Your task to perform on an android device: Check the news Image 0: 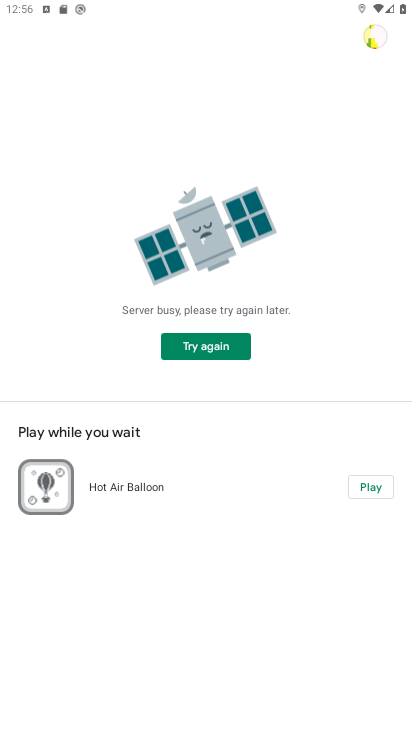
Step 0: press home button
Your task to perform on an android device: Check the news Image 1: 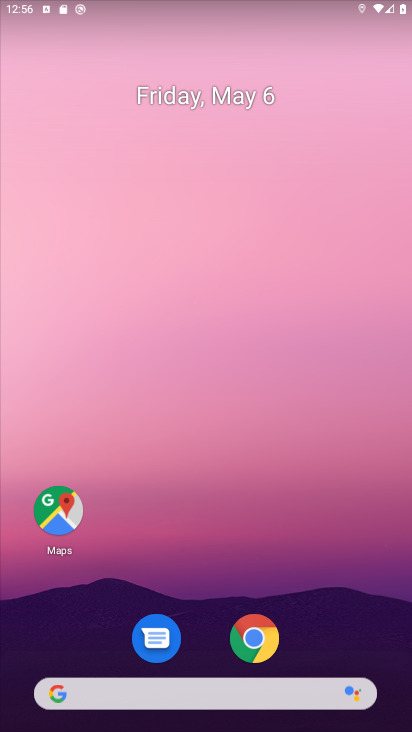
Step 1: drag from (325, 673) to (329, 2)
Your task to perform on an android device: Check the news Image 2: 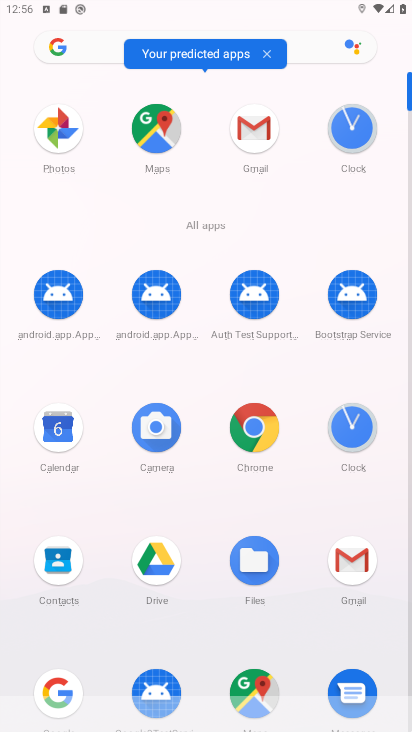
Step 2: click (254, 435)
Your task to perform on an android device: Check the news Image 3: 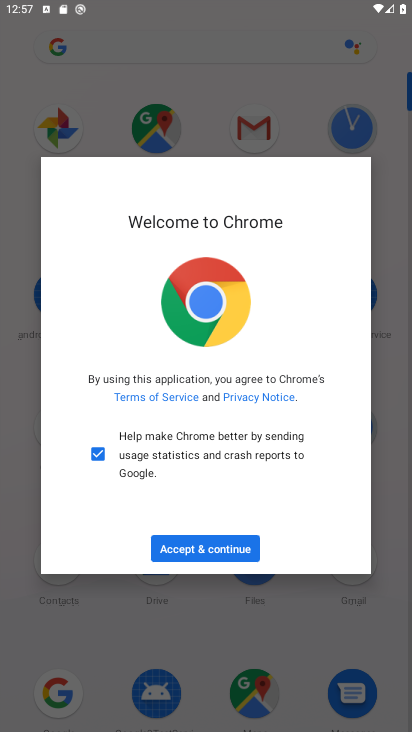
Step 3: click (158, 546)
Your task to perform on an android device: Check the news Image 4: 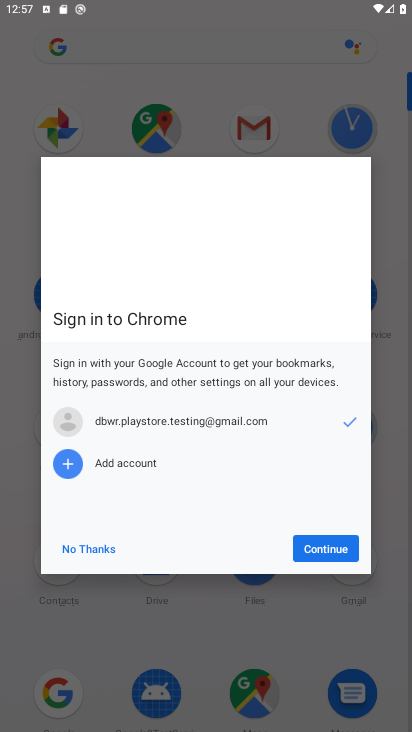
Step 4: click (103, 546)
Your task to perform on an android device: Check the news Image 5: 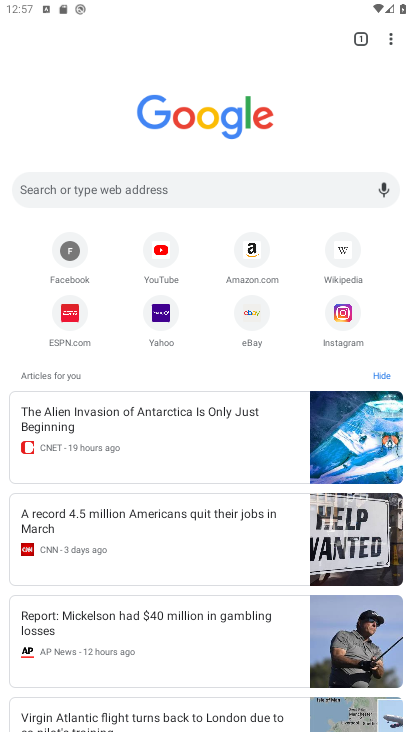
Step 5: click (265, 200)
Your task to perform on an android device: Check the news Image 6: 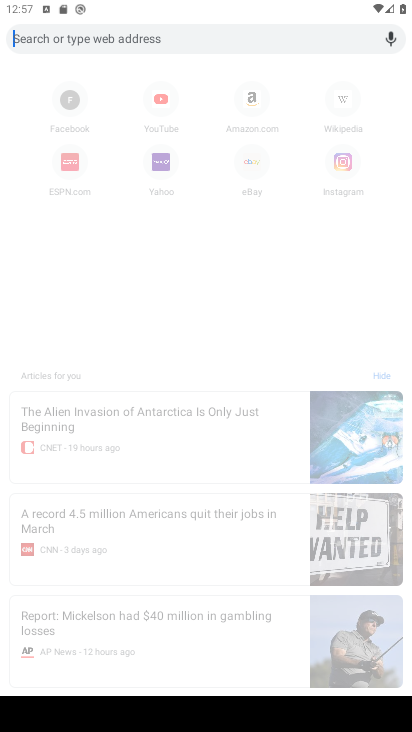
Step 6: type "check the news"
Your task to perform on an android device: Check the news Image 7: 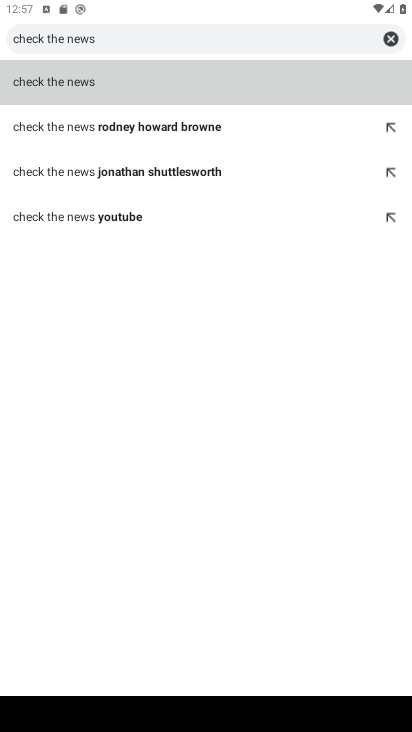
Step 7: click (172, 78)
Your task to perform on an android device: Check the news Image 8: 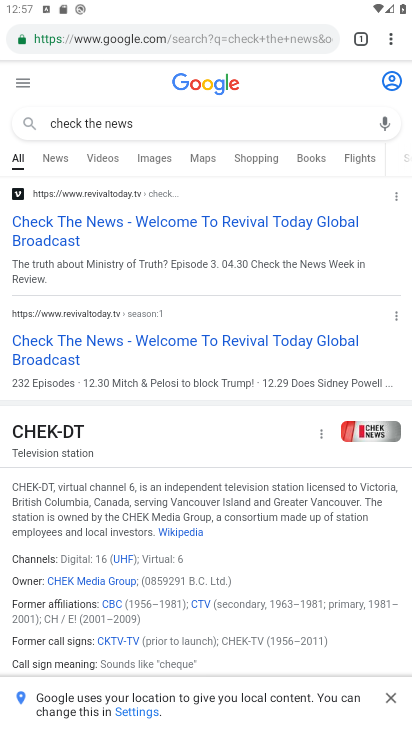
Step 8: task complete